Your task to perform on an android device: See recent photos Image 0: 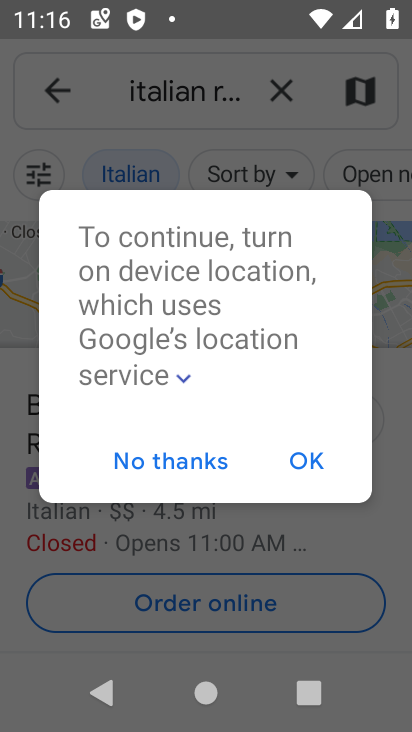
Step 0: press home button
Your task to perform on an android device: See recent photos Image 1: 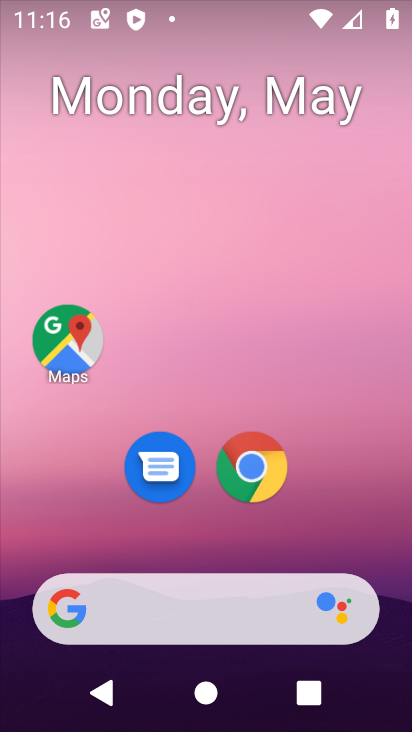
Step 1: drag from (209, 566) to (307, 38)
Your task to perform on an android device: See recent photos Image 2: 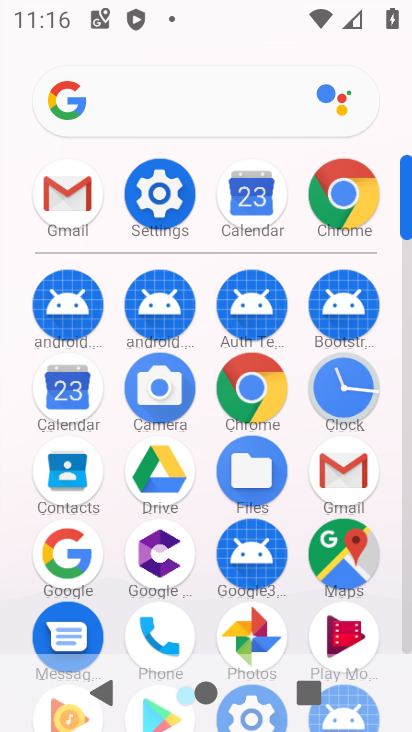
Step 2: click (253, 625)
Your task to perform on an android device: See recent photos Image 3: 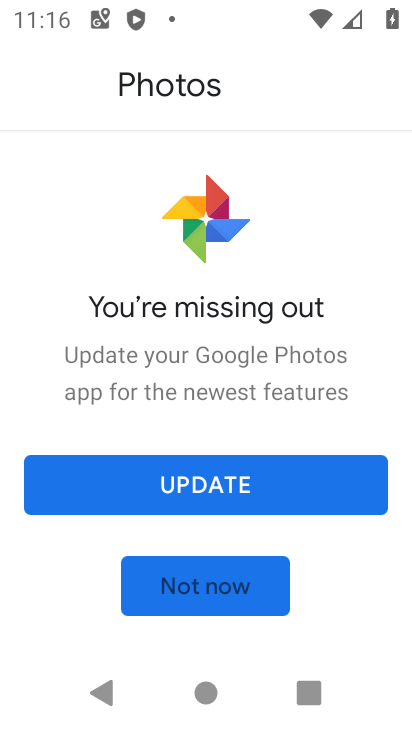
Step 3: click (305, 490)
Your task to perform on an android device: See recent photos Image 4: 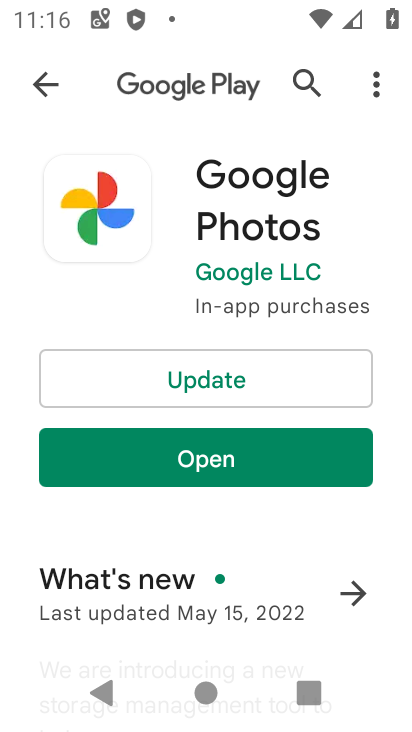
Step 4: click (213, 372)
Your task to perform on an android device: See recent photos Image 5: 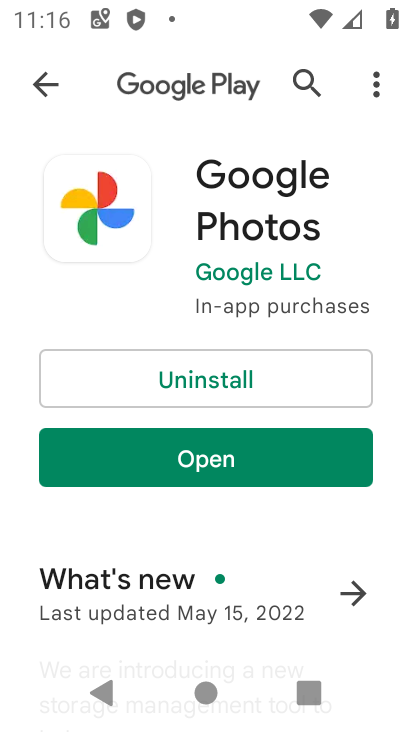
Step 5: click (237, 472)
Your task to perform on an android device: See recent photos Image 6: 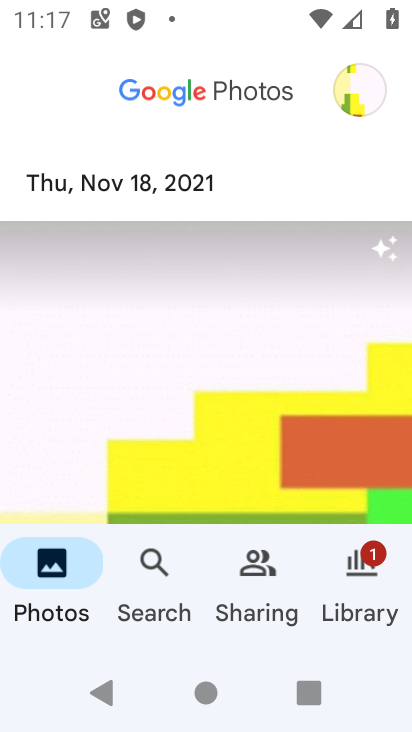
Step 6: task complete